Your task to perform on an android device: open chrome privacy settings Image 0: 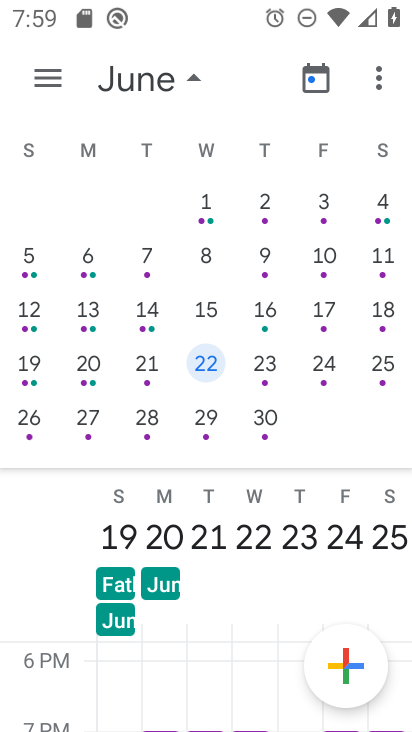
Step 0: press home button
Your task to perform on an android device: open chrome privacy settings Image 1: 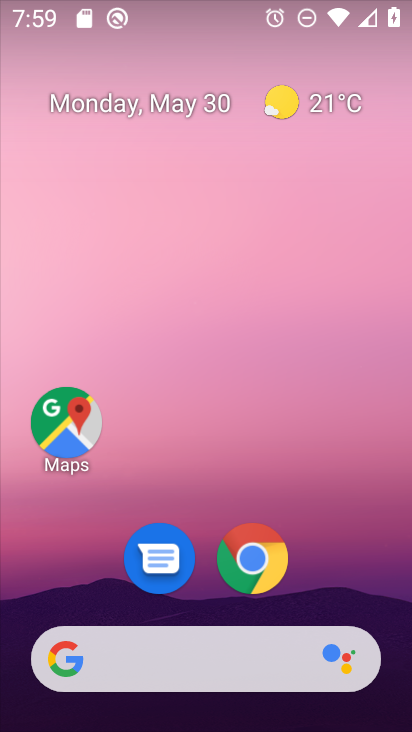
Step 1: click (252, 546)
Your task to perform on an android device: open chrome privacy settings Image 2: 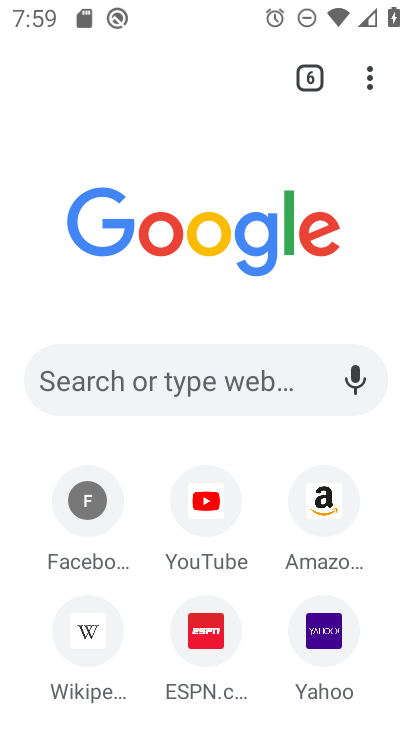
Step 2: click (371, 71)
Your task to perform on an android device: open chrome privacy settings Image 3: 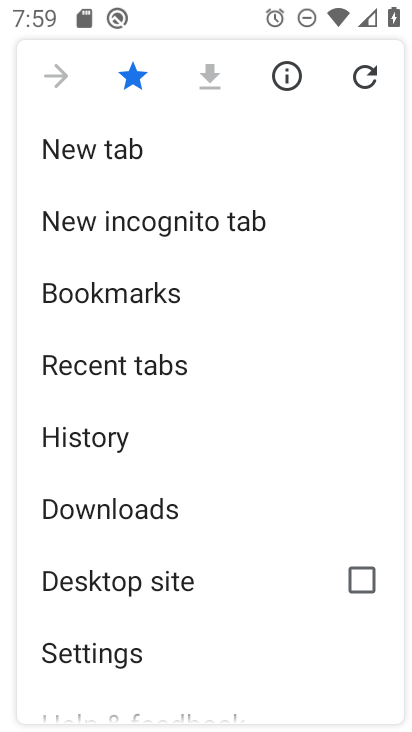
Step 3: drag from (200, 416) to (178, 123)
Your task to perform on an android device: open chrome privacy settings Image 4: 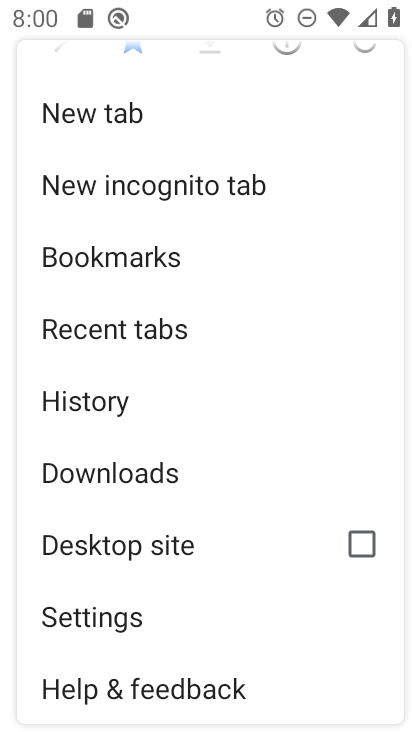
Step 4: click (102, 617)
Your task to perform on an android device: open chrome privacy settings Image 5: 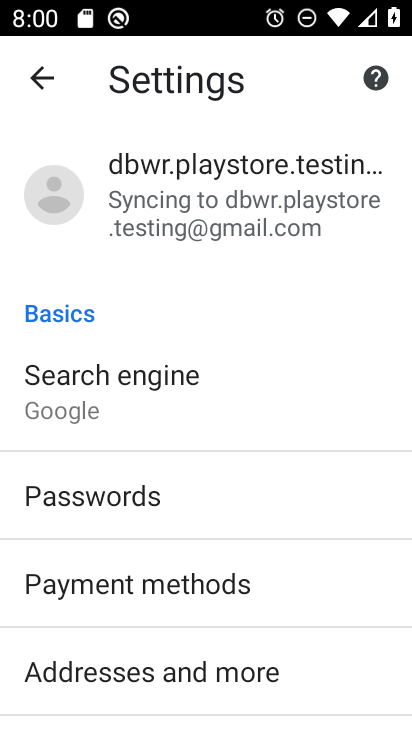
Step 5: drag from (241, 557) to (163, 140)
Your task to perform on an android device: open chrome privacy settings Image 6: 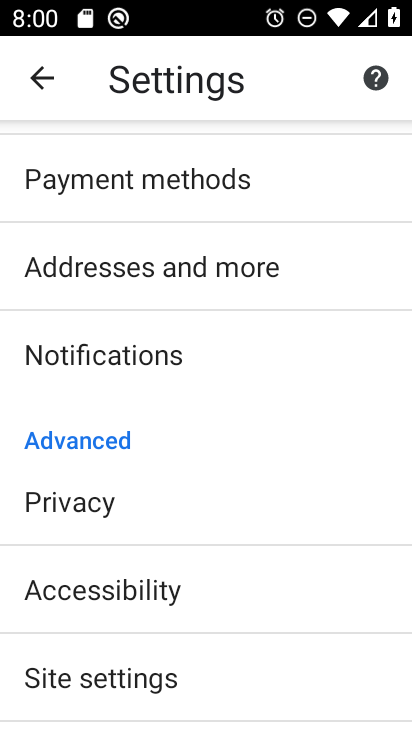
Step 6: click (83, 496)
Your task to perform on an android device: open chrome privacy settings Image 7: 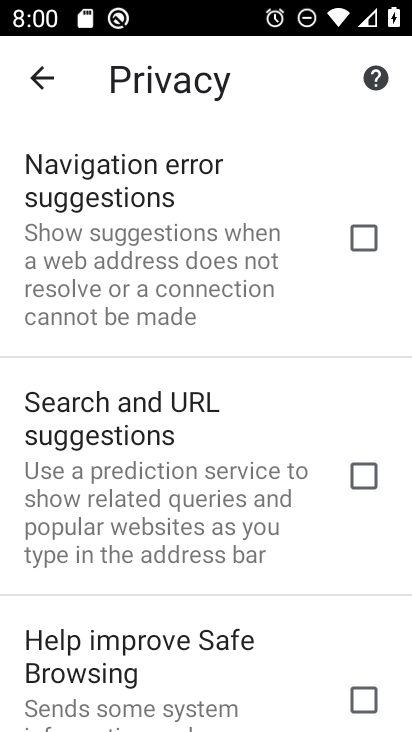
Step 7: task complete